Your task to perform on an android device: Go to CNN.com Image 0: 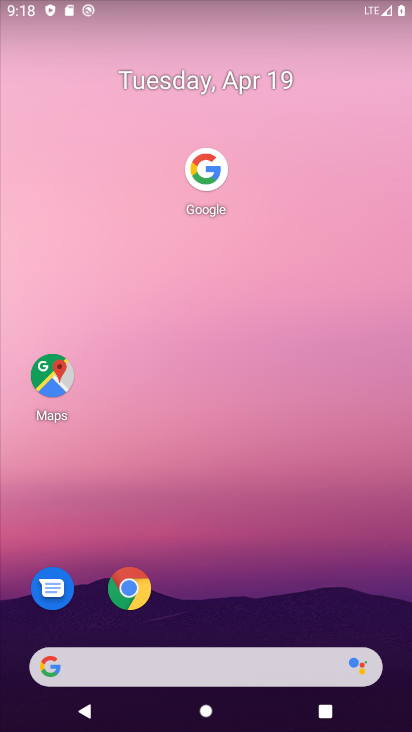
Step 0: click (185, 665)
Your task to perform on an android device: Go to CNN.com Image 1: 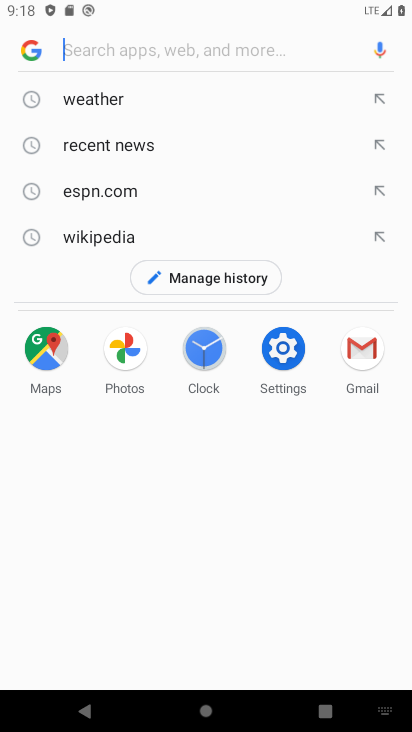
Step 1: click (140, 44)
Your task to perform on an android device: Go to CNN.com Image 2: 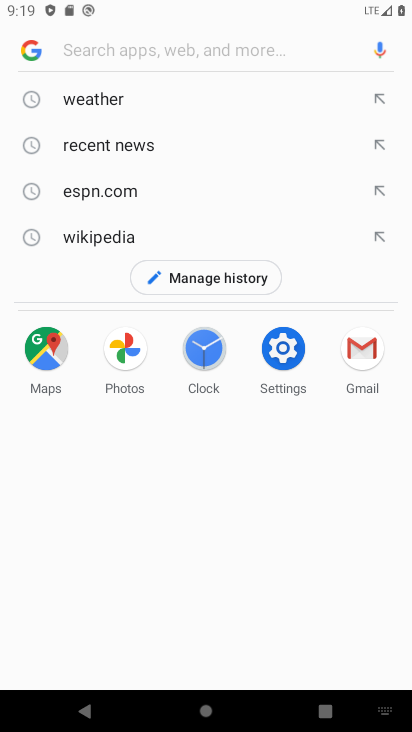
Step 2: type "CNN.com"
Your task to perform on an android device: Go to CNN.com Image 3: 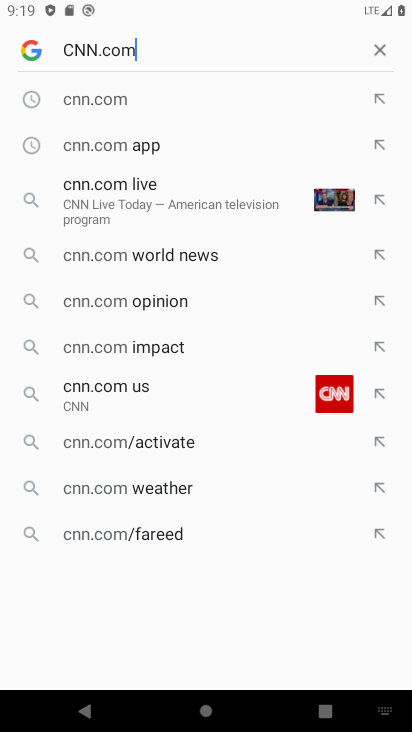
Step 3: click (111, 100)
Your task to perform on an android device: Go to CNN.com Image 4: 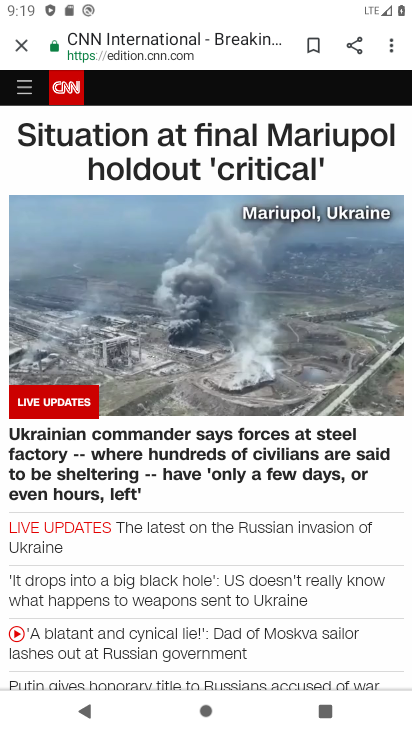
Step 4: task complete